Your task to perform on an android device: check android version Image 0: 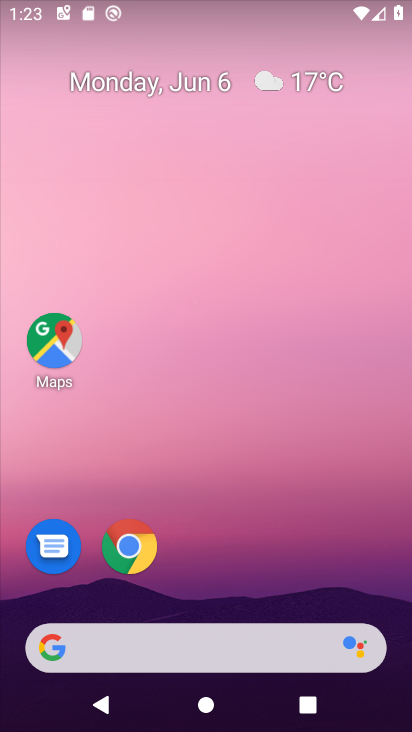
Step 0: drag from (207, 647) to (175, 294)
Your task to perform on an android device: check android version Image 1: 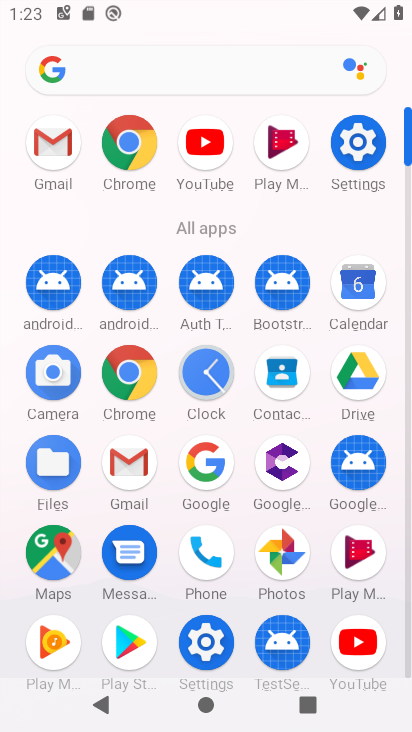
Step 1: click (379, 147)
Your task to perform on an android device: check android version Image 2: 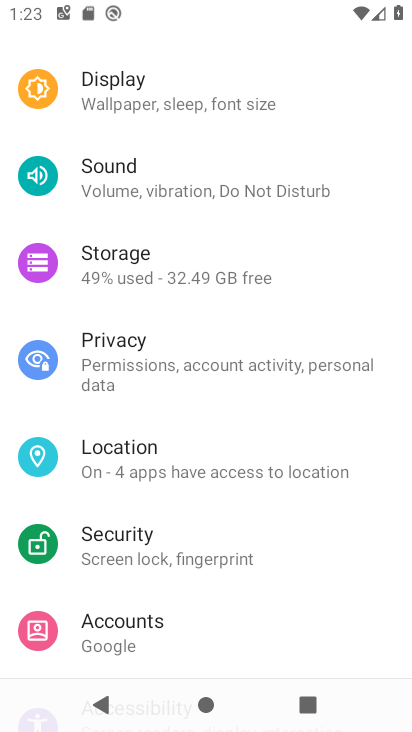
Step 2: drag from (156, 564) to (231, 48)
Your task to perform on an android device: check android version Image 3: 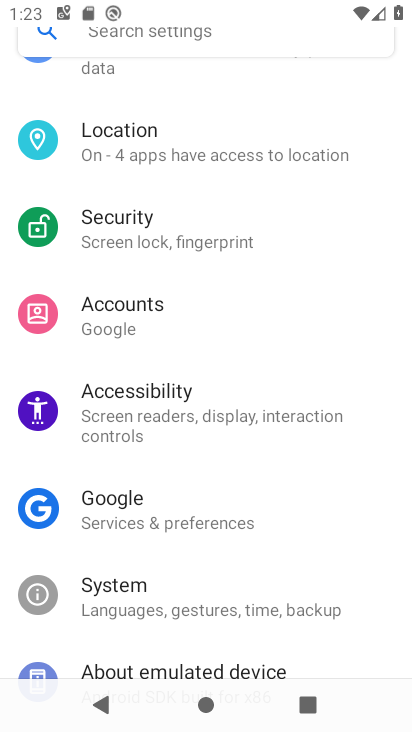
Step 3: click (218, 662)
Your task to perform on an android device: check android version Image 4: 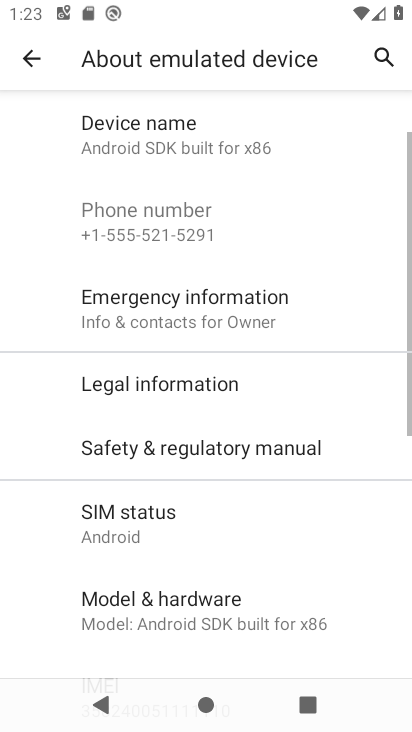
Step 4: drag from (238, 541) to (306, 128)
Your task to perform on an android device: check android version Image 5: 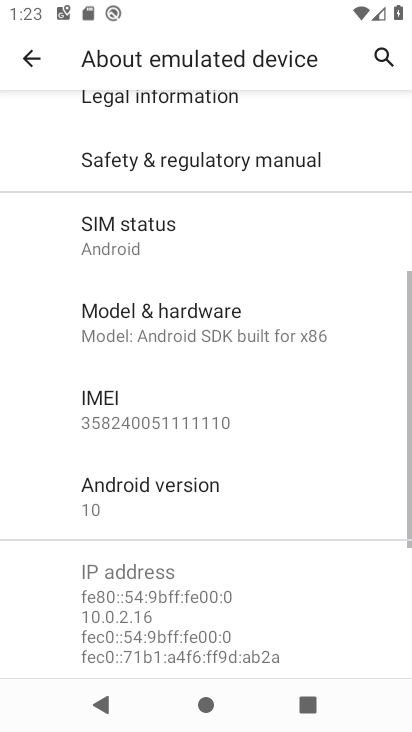
Step 5: click (228, 482)
Your task to perform on an android device: check android version Image 6: 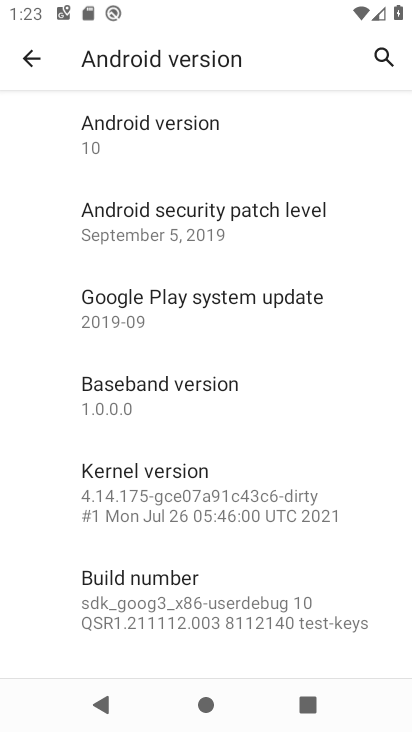
Step 6: task complete